Your task to perform on an android device: Open settings on Google Maps Image 0: 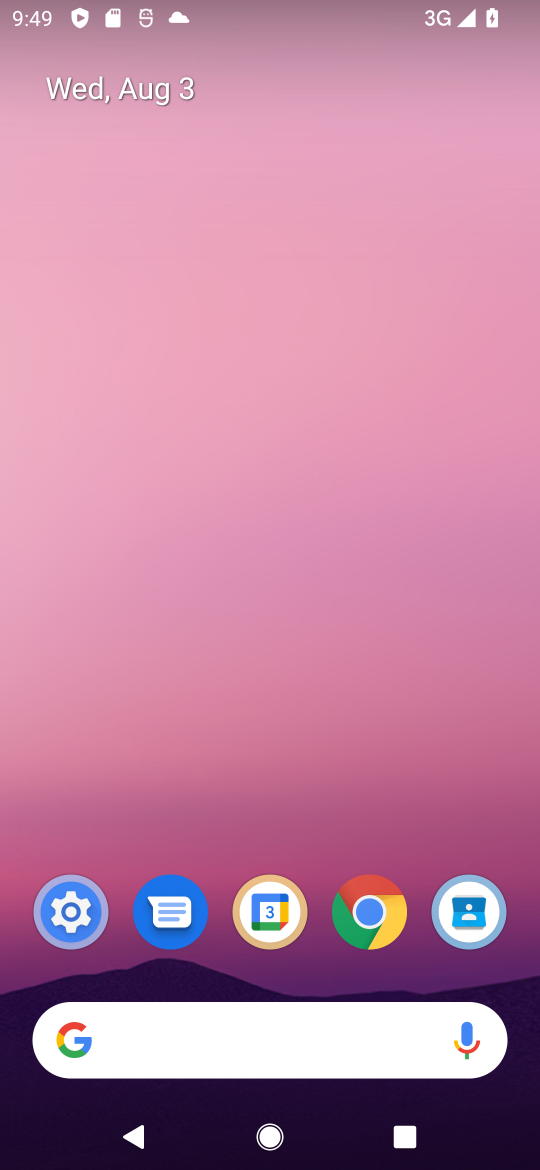
Step 0: drag from (359, 832) to (377, 71)
Your task to perform on an android device: Open settings on Google Maps Image 1: 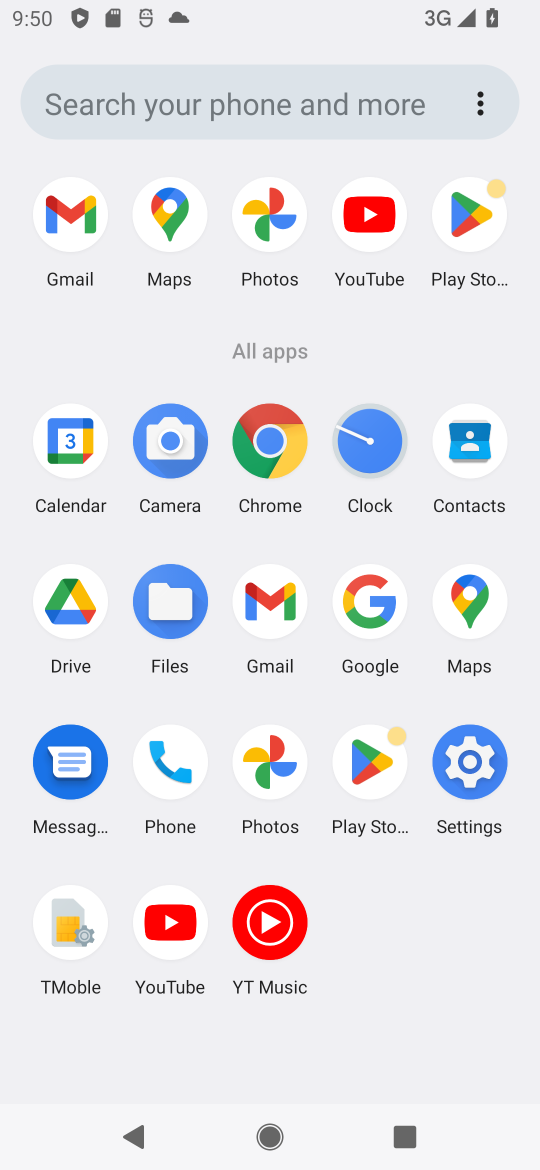
Step 1: click (472, 582)
Your task to perform on an android device: Open settings on Google Maps Image 2: 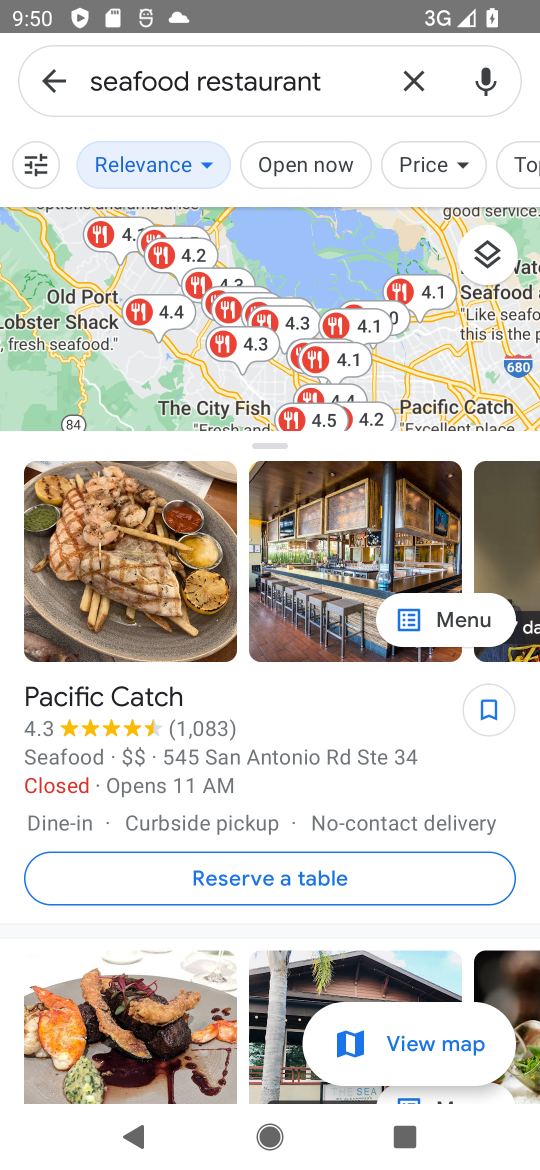
Step 2: drag from (357, 184) to (315, 666)
Your task to perform on an android device: Open settings on Google Maps Image 3: 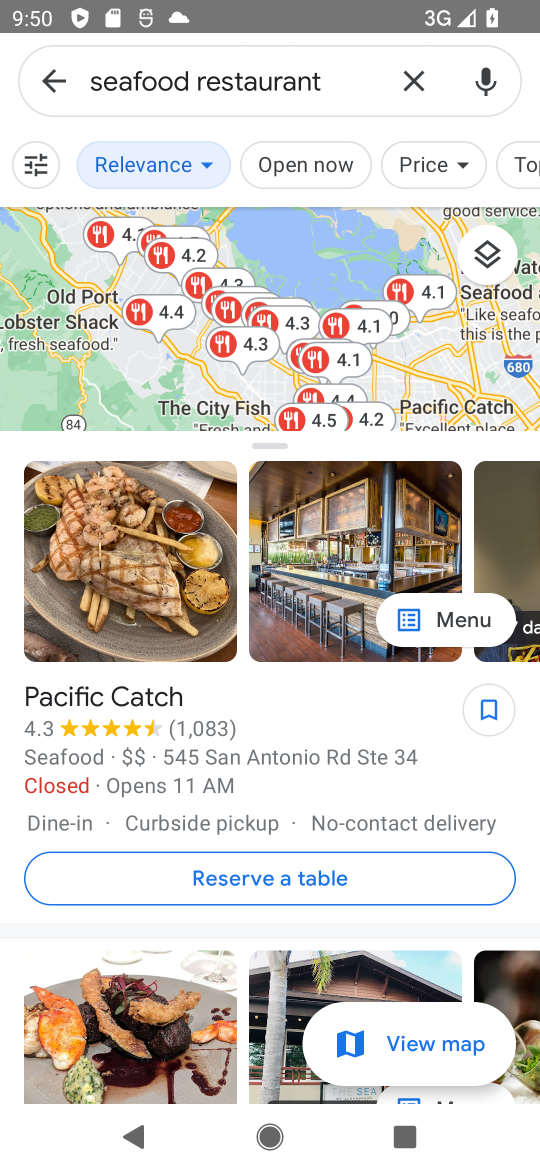
Step 3: click (46, 85)
Your task to perform on an android device: Open settings on Google Maps Image 4: 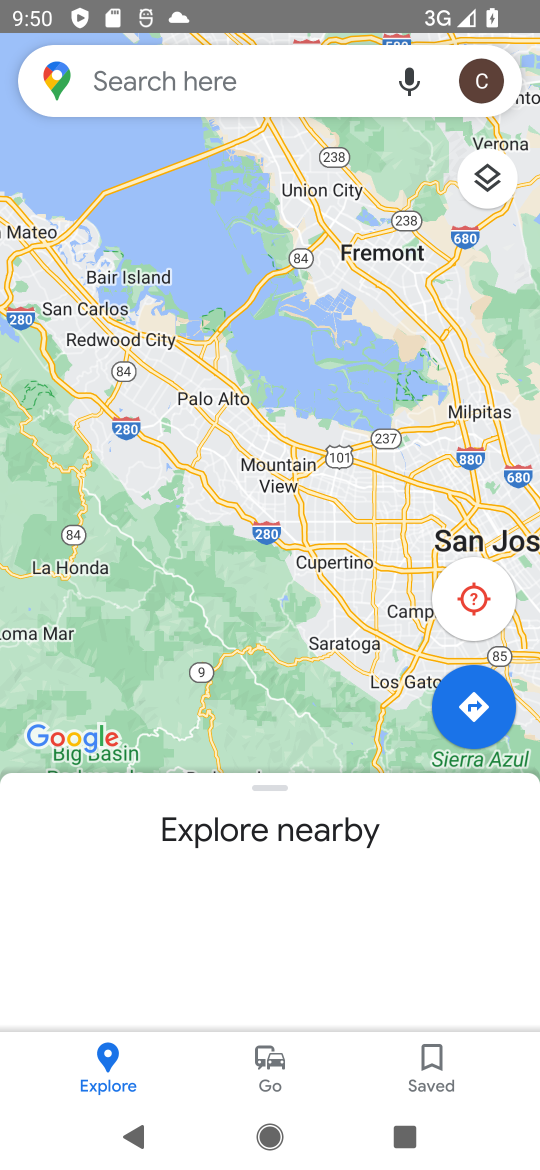
Step 4: click (479, 79)
Your task to perform on an android device: Open settings on Google Maps Image 5: 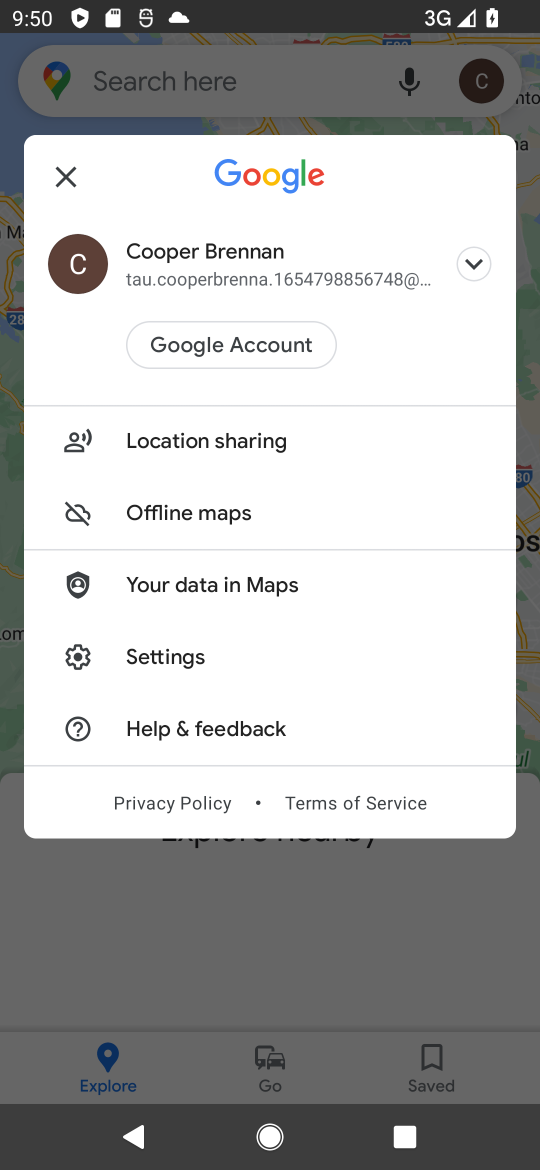
Step 5: click (144, 660)
Your task to perform on an android device: Open settings on Google Maps Image 6: 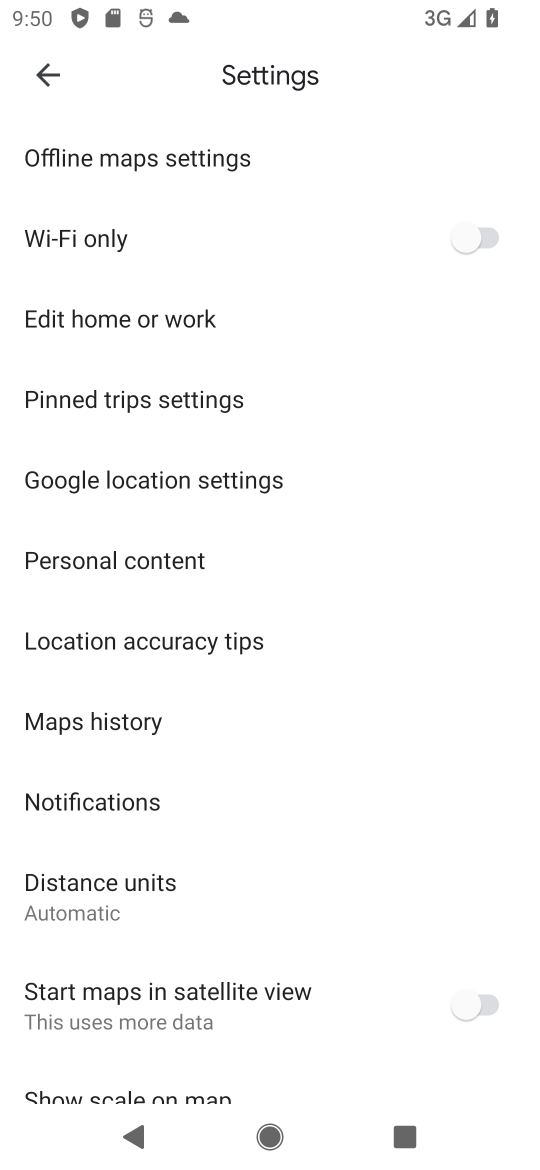
Step 6: task complete